Your task to perform on an android device: Show me productivity apps on the Play Store Image 0: 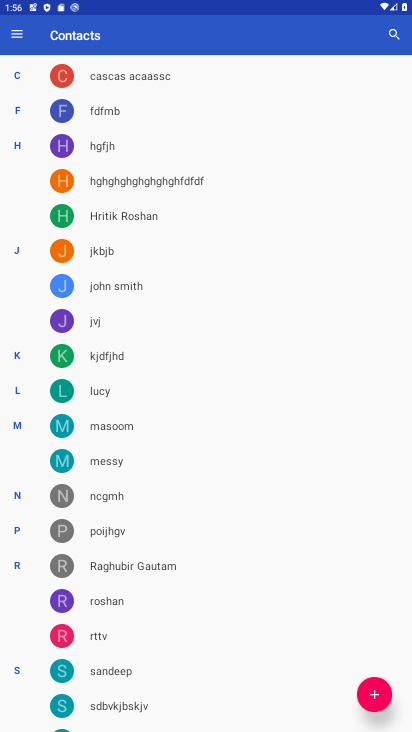
Step 0: press home button
Your task to perform on an android device: Show me productivity apps on the Play Store Image 1: 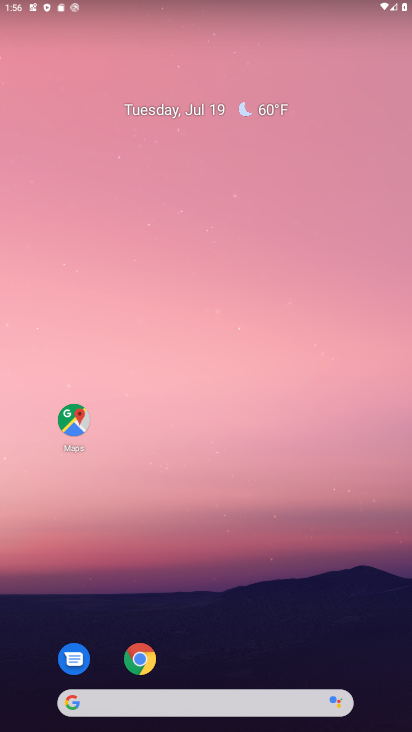
Step 1: drag from (246, 687) to (259, 231)
Your task to perform on an android device: Show me productivity apps on the Play Store Image 2: 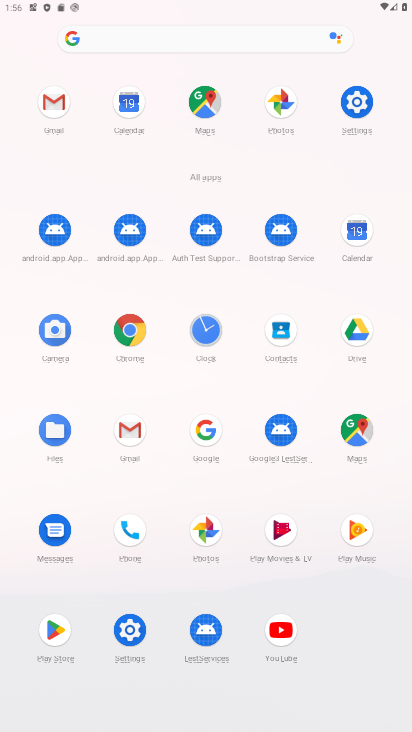
Step 2: click (62, 643)
Your task to perform on an android device: Show me productivity apps on the Play Store Image 3: 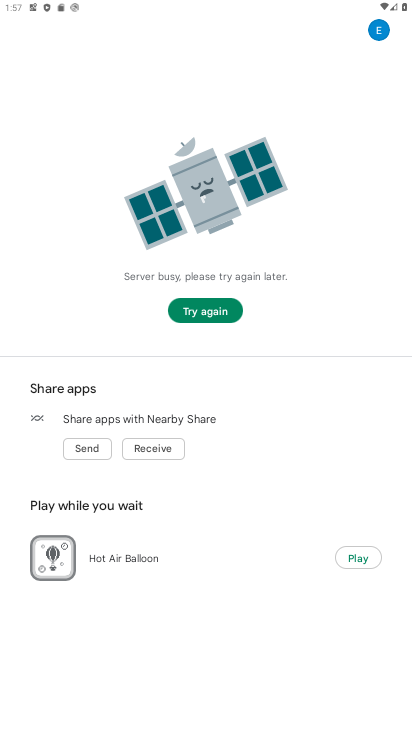
Step 3: click (222, 315)
Your task to perform on an android device: Show me productivity apps on the Play Store Image 4: 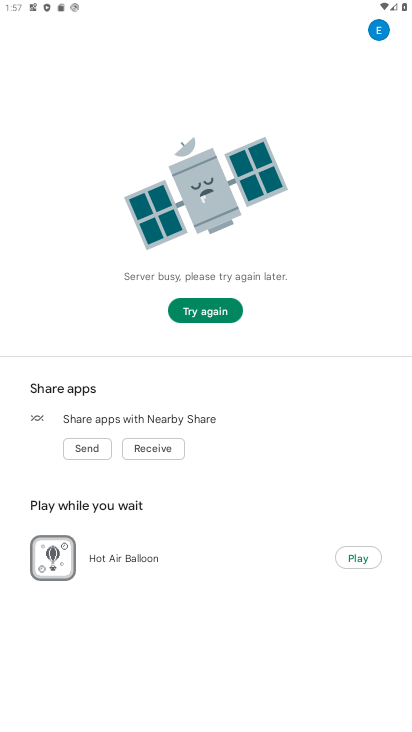
Step 4: task complete